Your task to perform on an android device: turn pop-ups off in chrome Image 0: 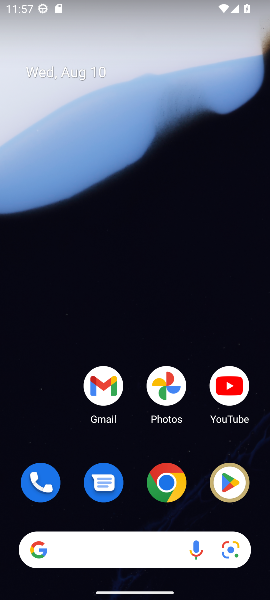
Step 0: click (171, 491)
Your task to perform on an android device: turn pop-ups off in chrome Image 1: 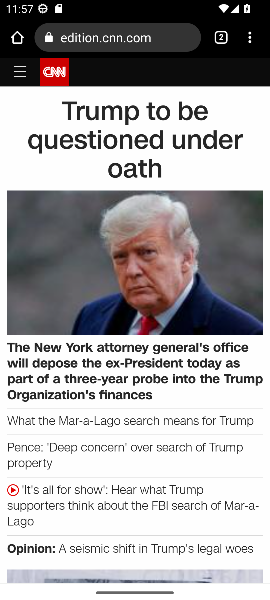
Step 1: click (255, 45)
Your task to perform on an android device: turn pop-ups off in chrome Image 2: 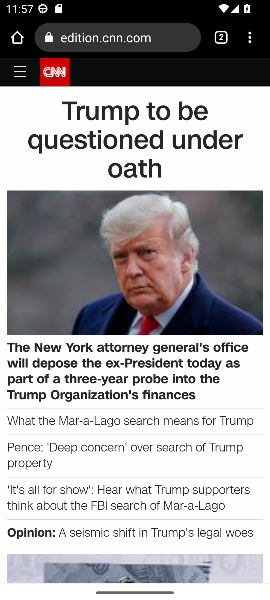
Step 2: click (258, 40)
Your task to perform on an android device: turn pop-ups off in chrome Image 3: 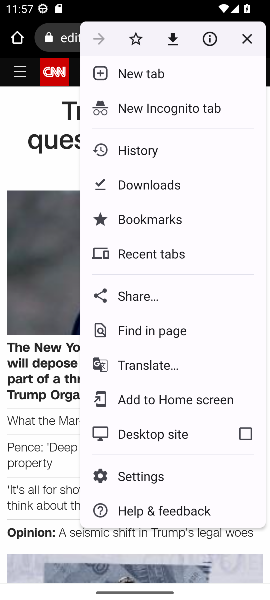
Step 3: task complete